Your task to perform on an android device: Open wifi settings Image 0: 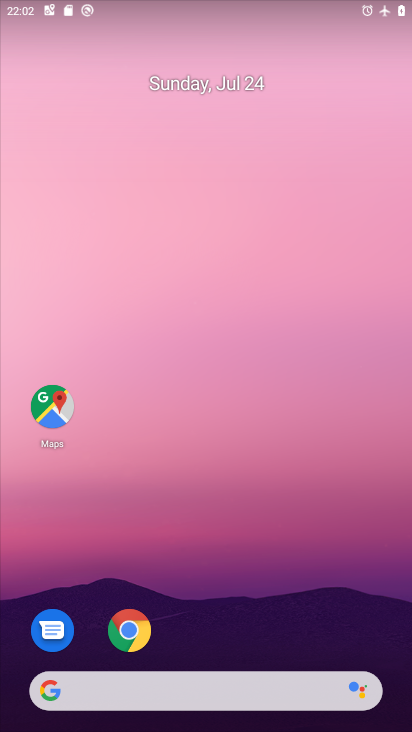
Step 0: drag from (247, 657) to (282, 0)
Your task to perform on an android device: Open wifi settings Image 1: 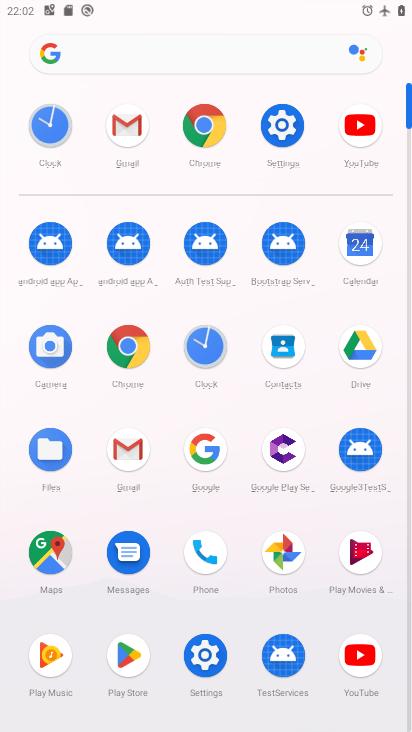
Step 1: click (279, 122)
Your task to perform on an android device: Open wifi settings Image 2: 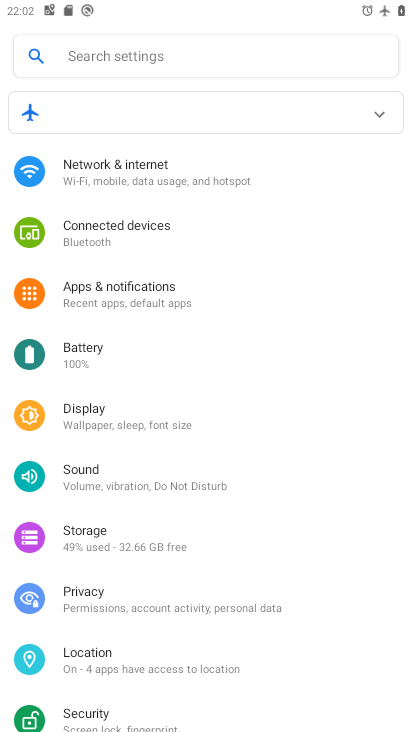
Step 2: click (98, 161)
Your task to perform on an android device: Open wifi settings Image 3: 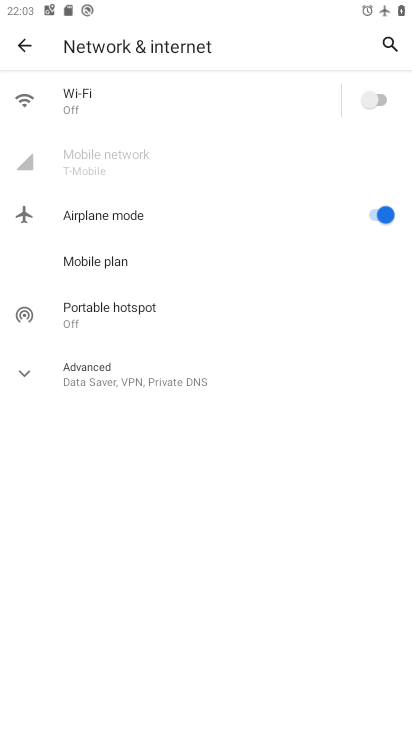
Step 3: task complete